Your task to perform on an android device: check out phone information Image 0: 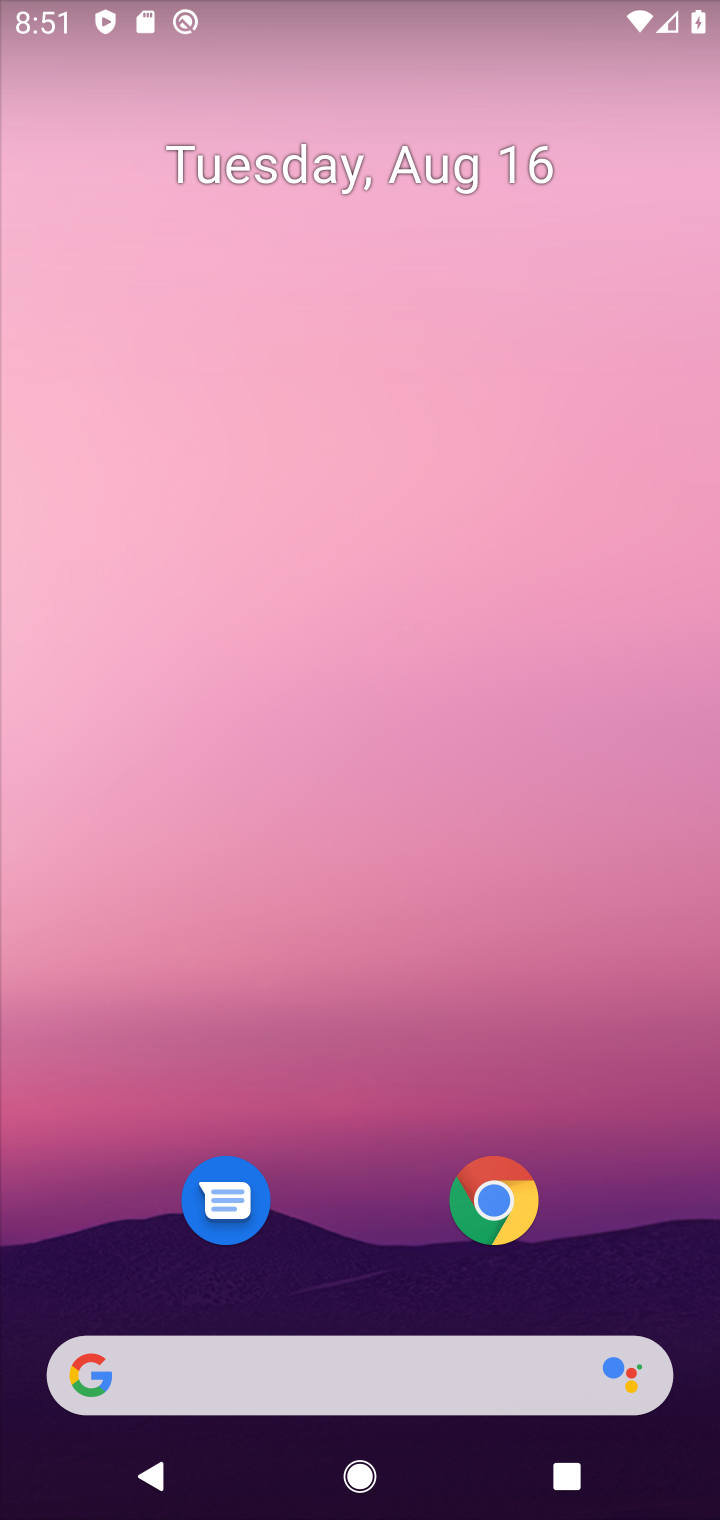
Step 0: drag from (312, 1180) to (250, 285)
Your task to perform on an android device: check out phone information Image 1: 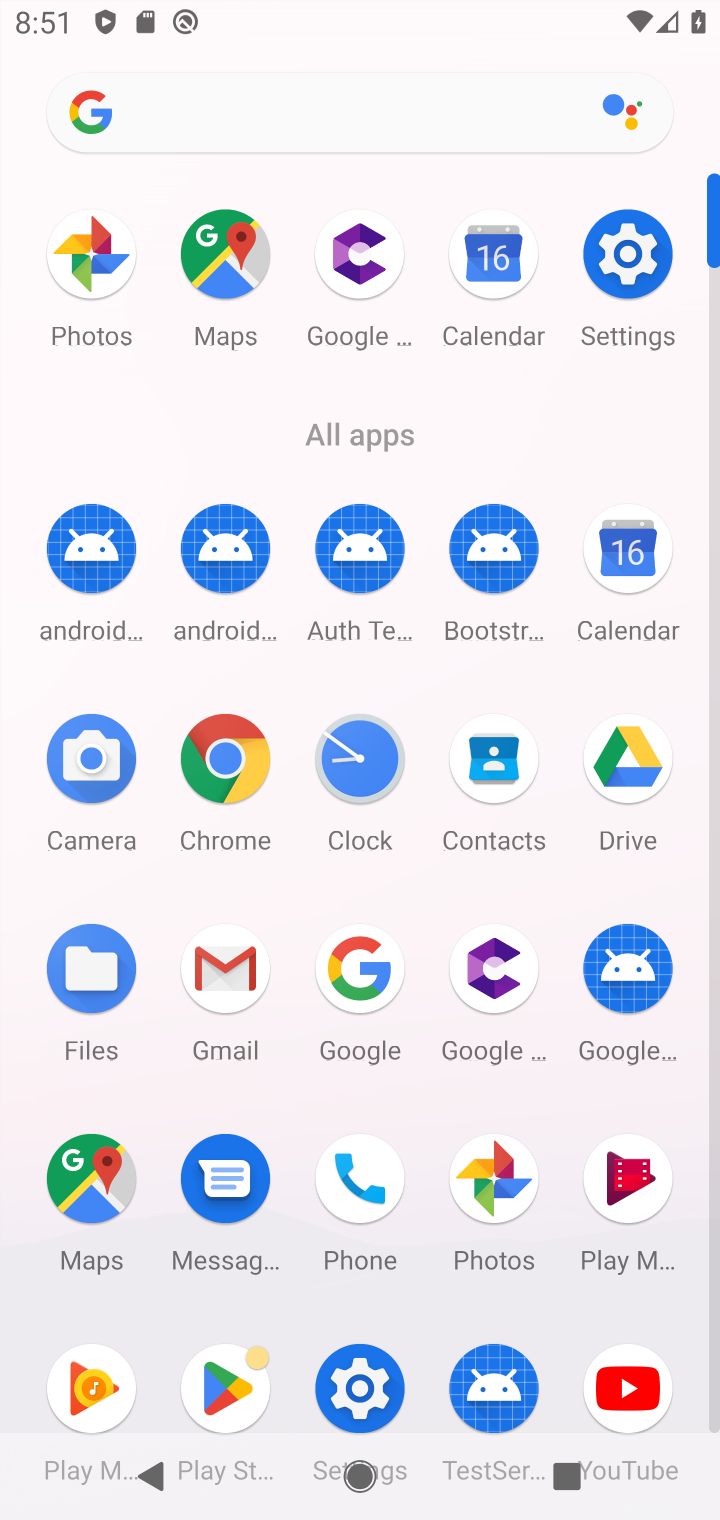
Step 1: click (625, 247)
Your task to perform on an android device: check out phone information Image 2: 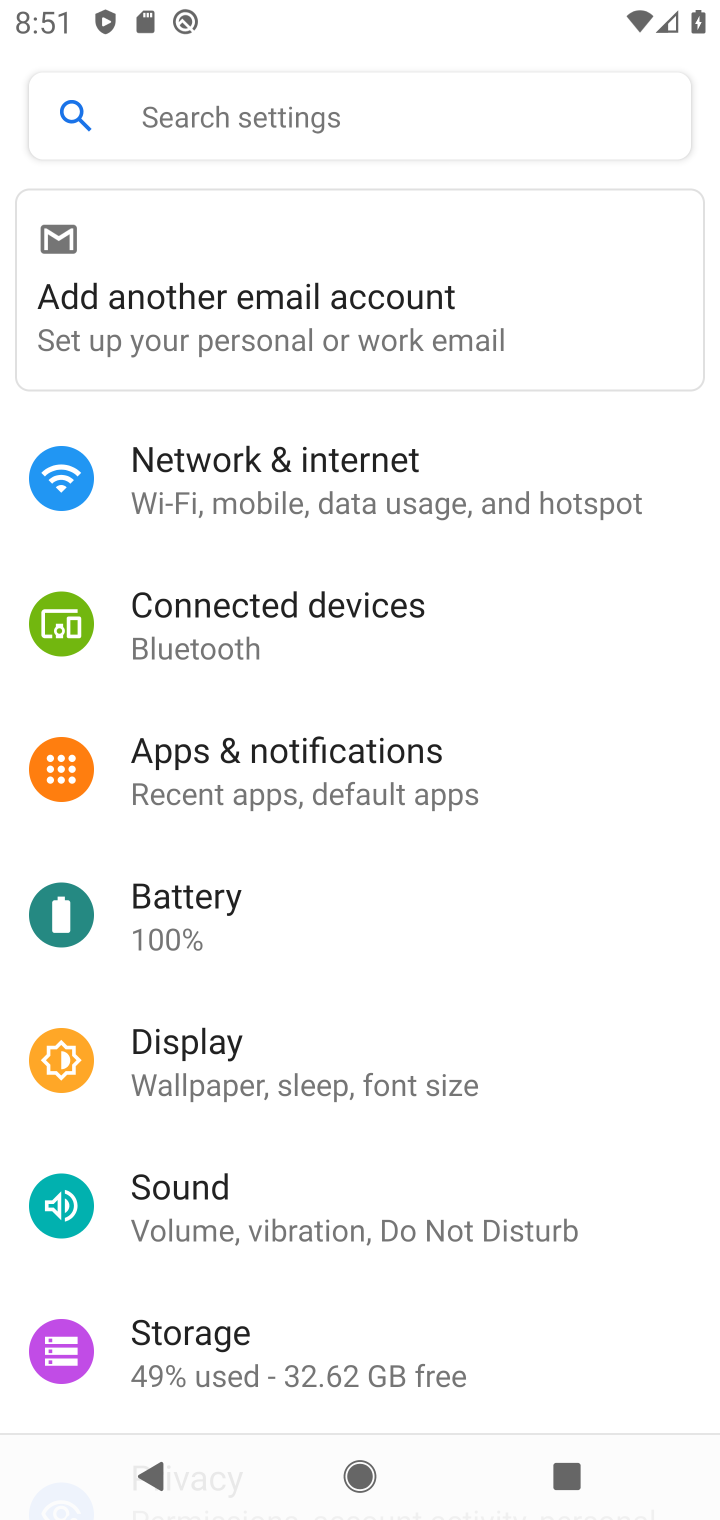
Step 2: drag from (263, 936) to (456, 146)
Your task to perform on an android device: check out phone information Image 3: 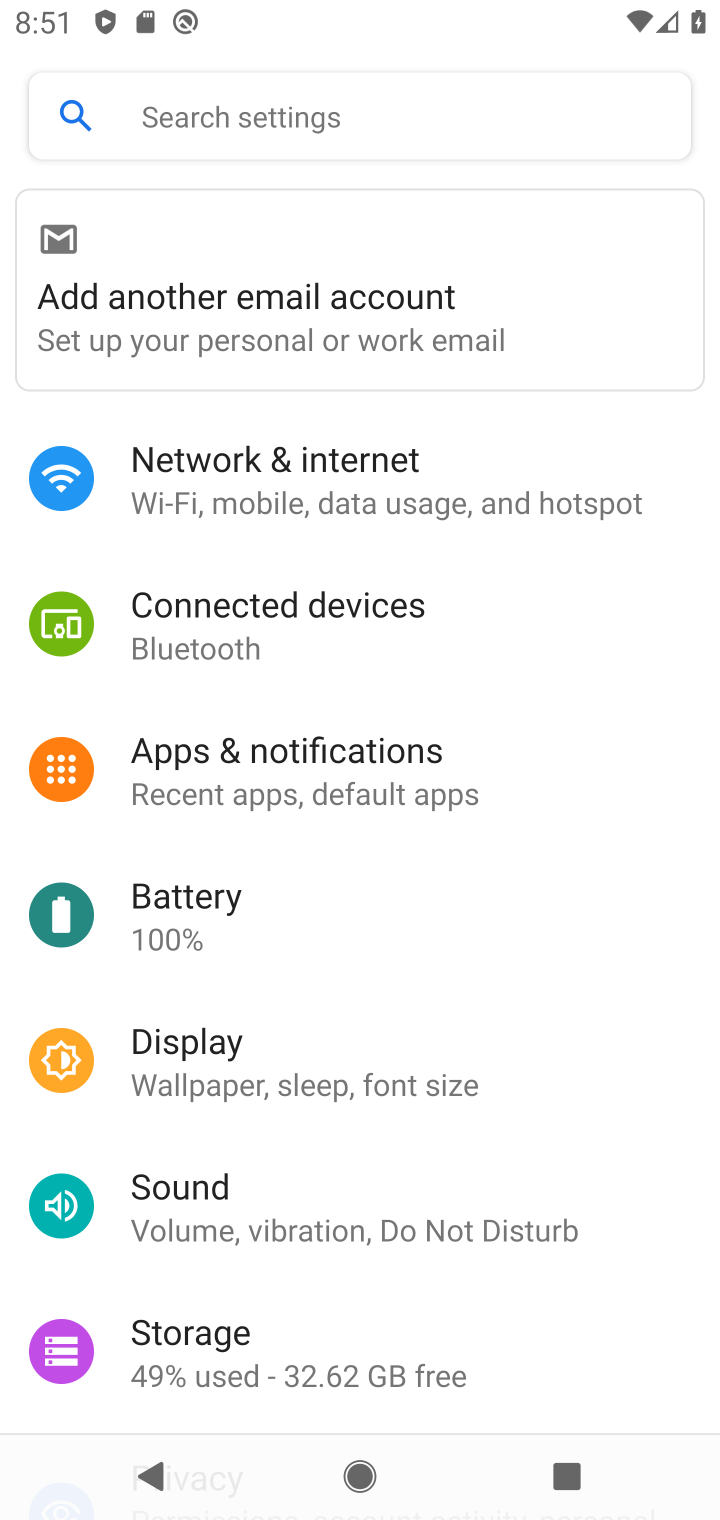
Step 3: drag from (246, 949) to (292, 350)
Your task to perform on an android device: check out phone information Image 4: 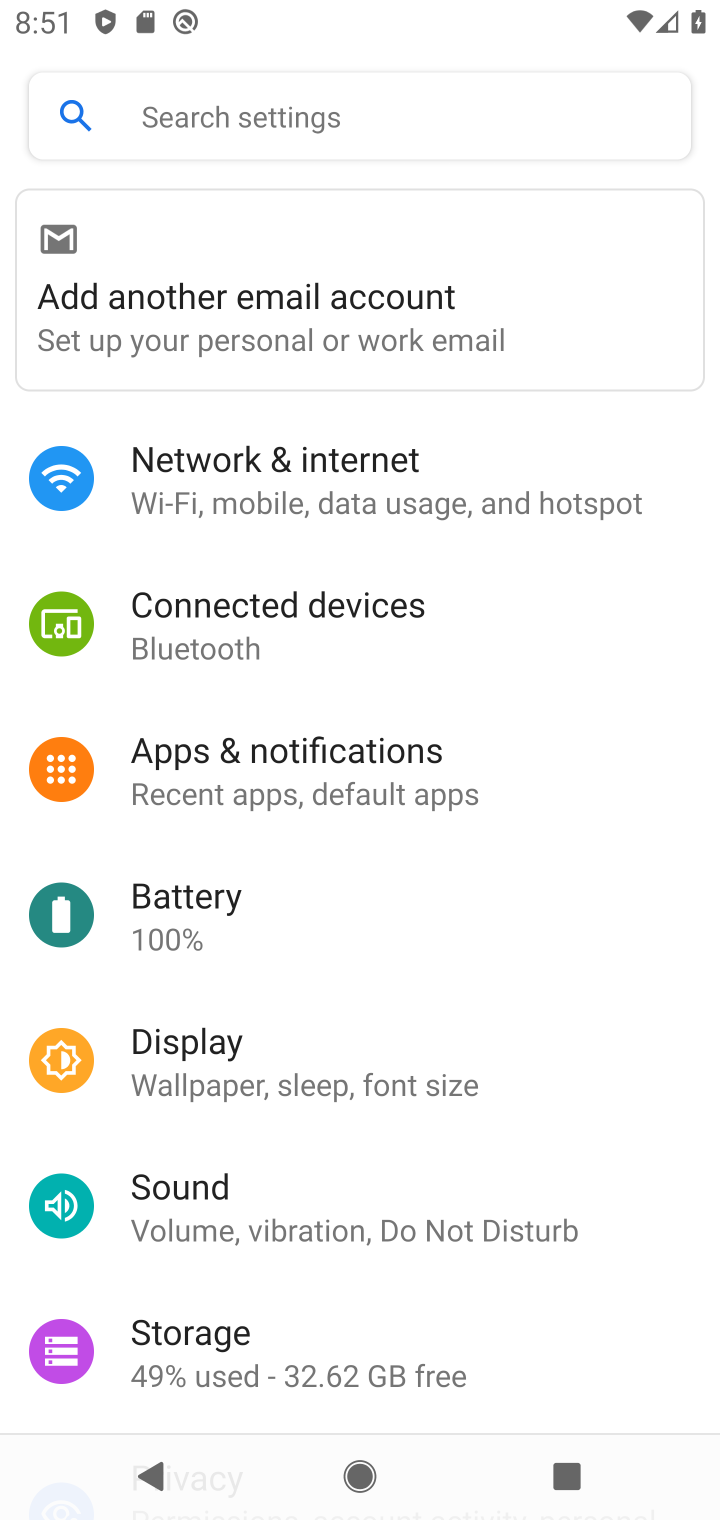
Step 4: drag from (299, 705) to (438, 67)
Your task to perform on an android device: check out phone information Image 5: 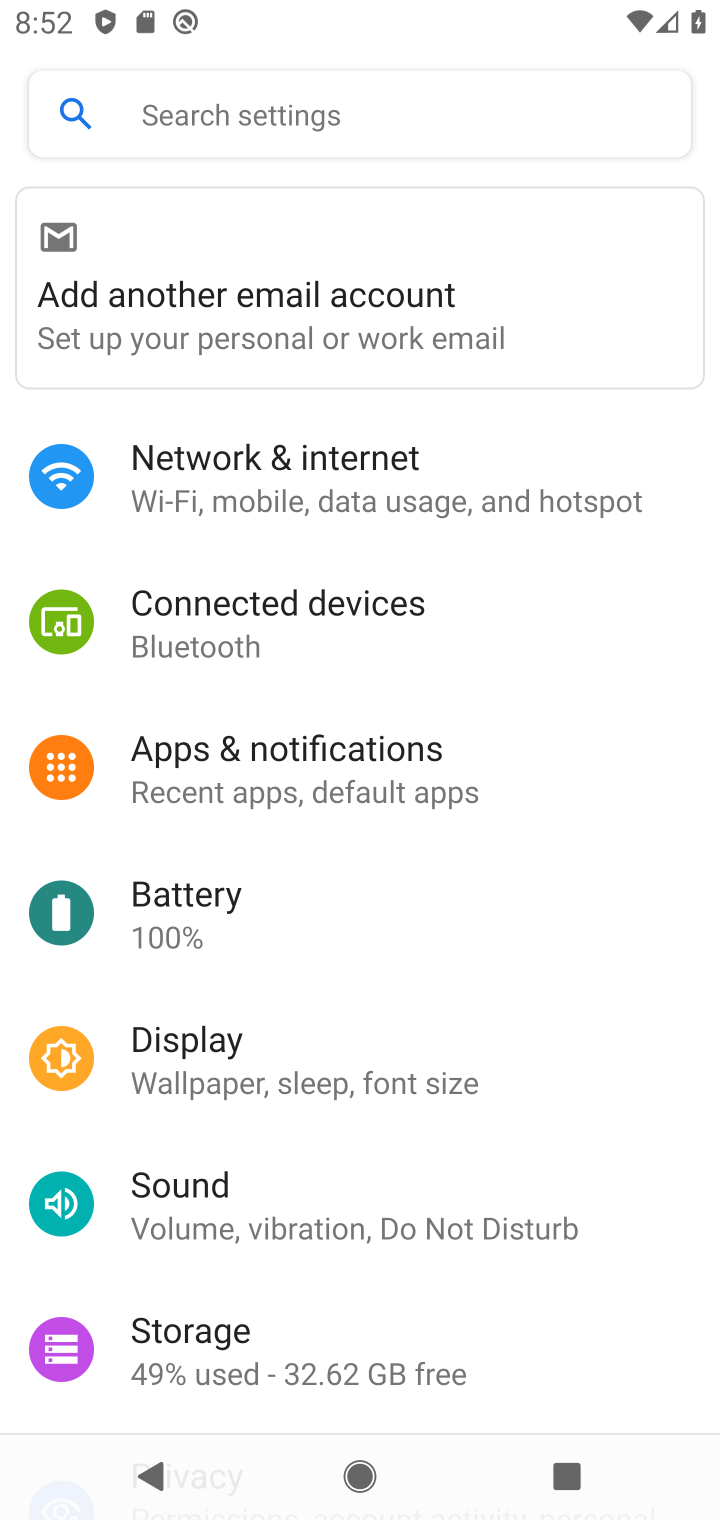
Step 5: drag from (213, 1347) to (336, 520)
Your task to perform on an android device: check out phone information Image 6: 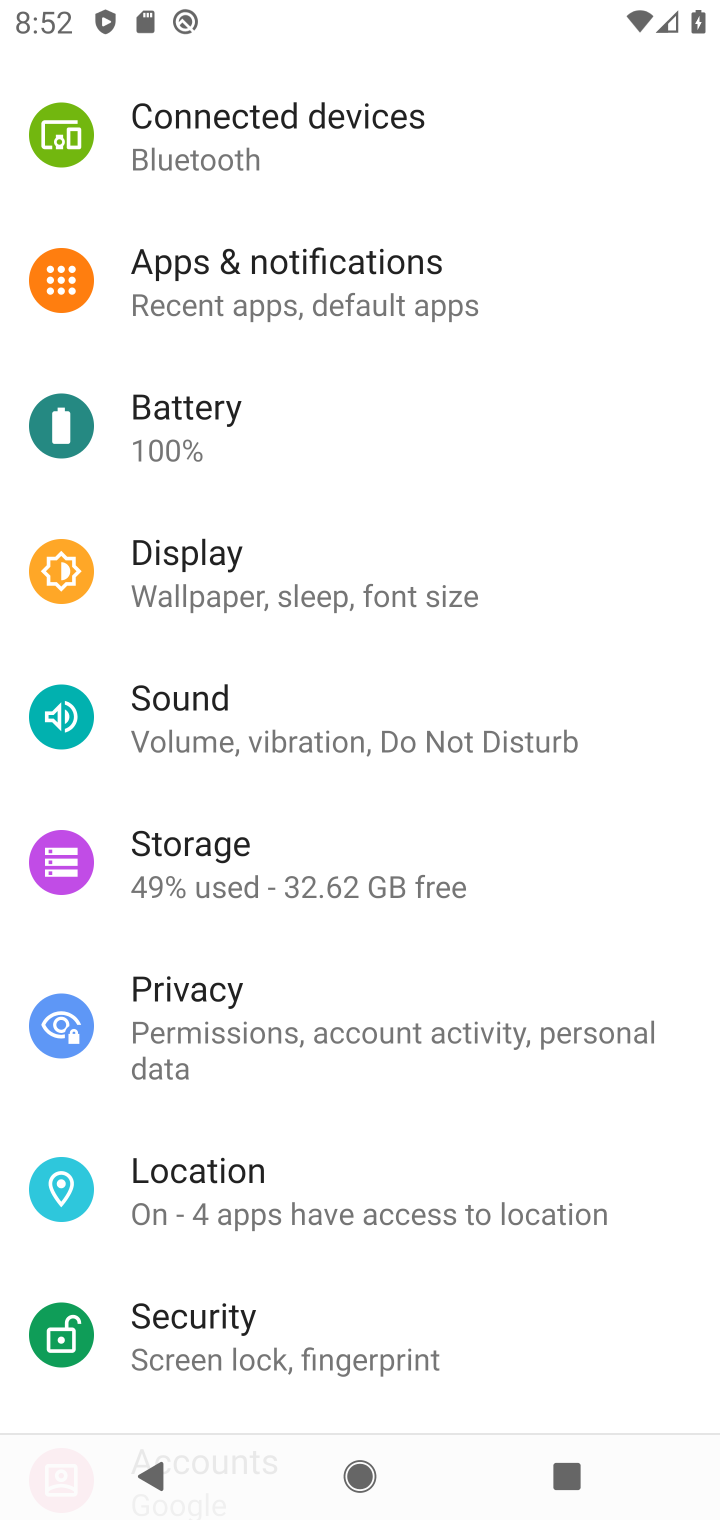
Step 6: drag from (304, 835) to (357, 438)
Your task to perform on an android device: check out phone information Image 7: 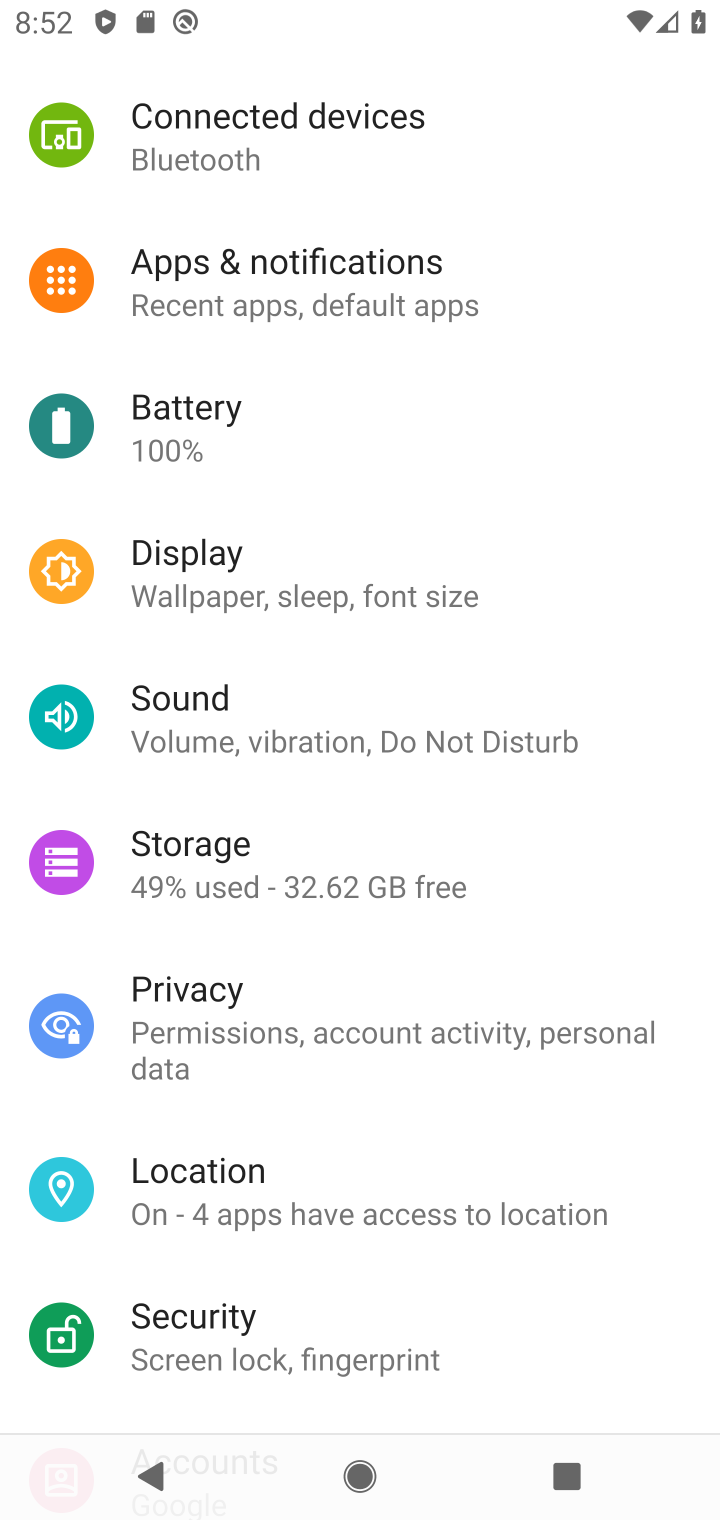
Step 7: drag from (338, 551) to (367, 145)
Your task to perform on an android device: check out phone information Image 8: 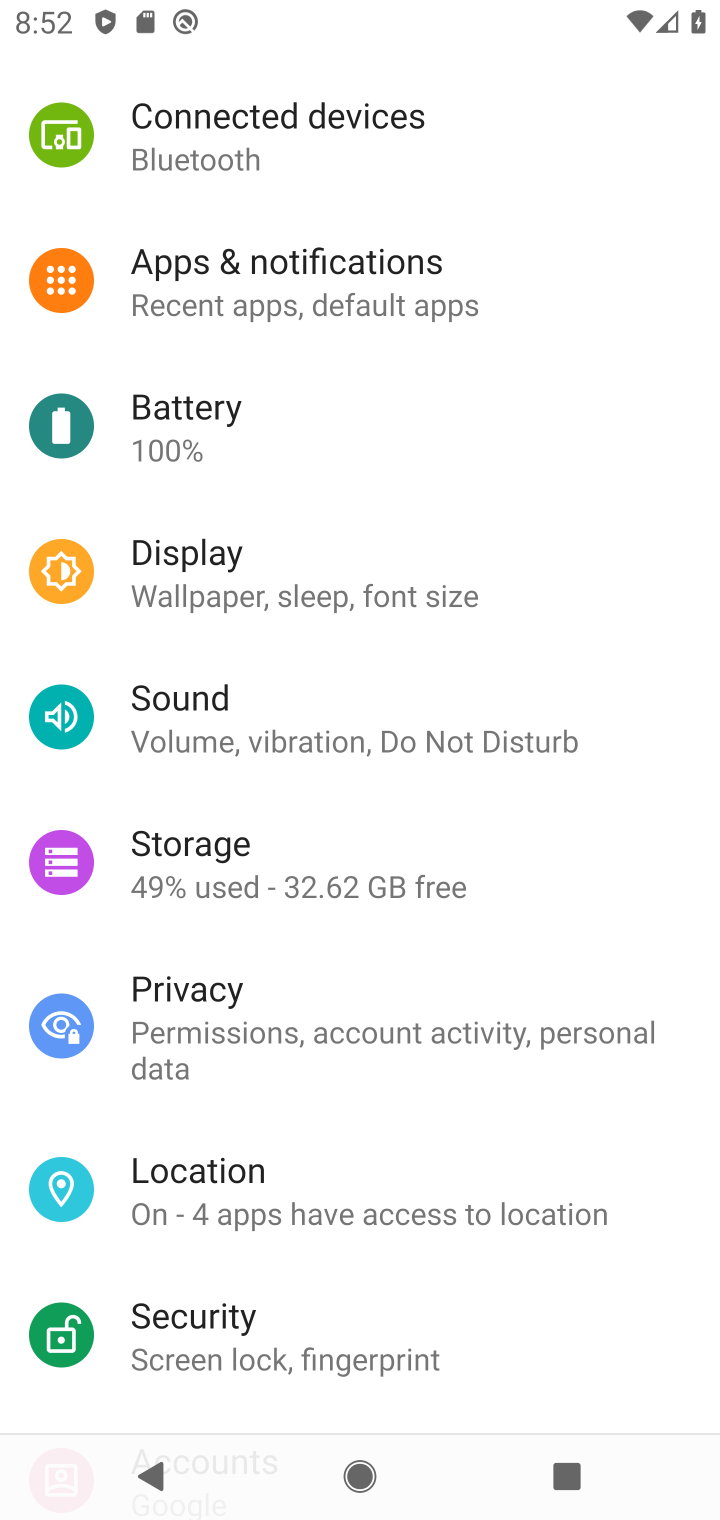
Step 8: drag from (397, 1153) to (508, 327)
Your task to perform on an android device: check out phone information Image 9: 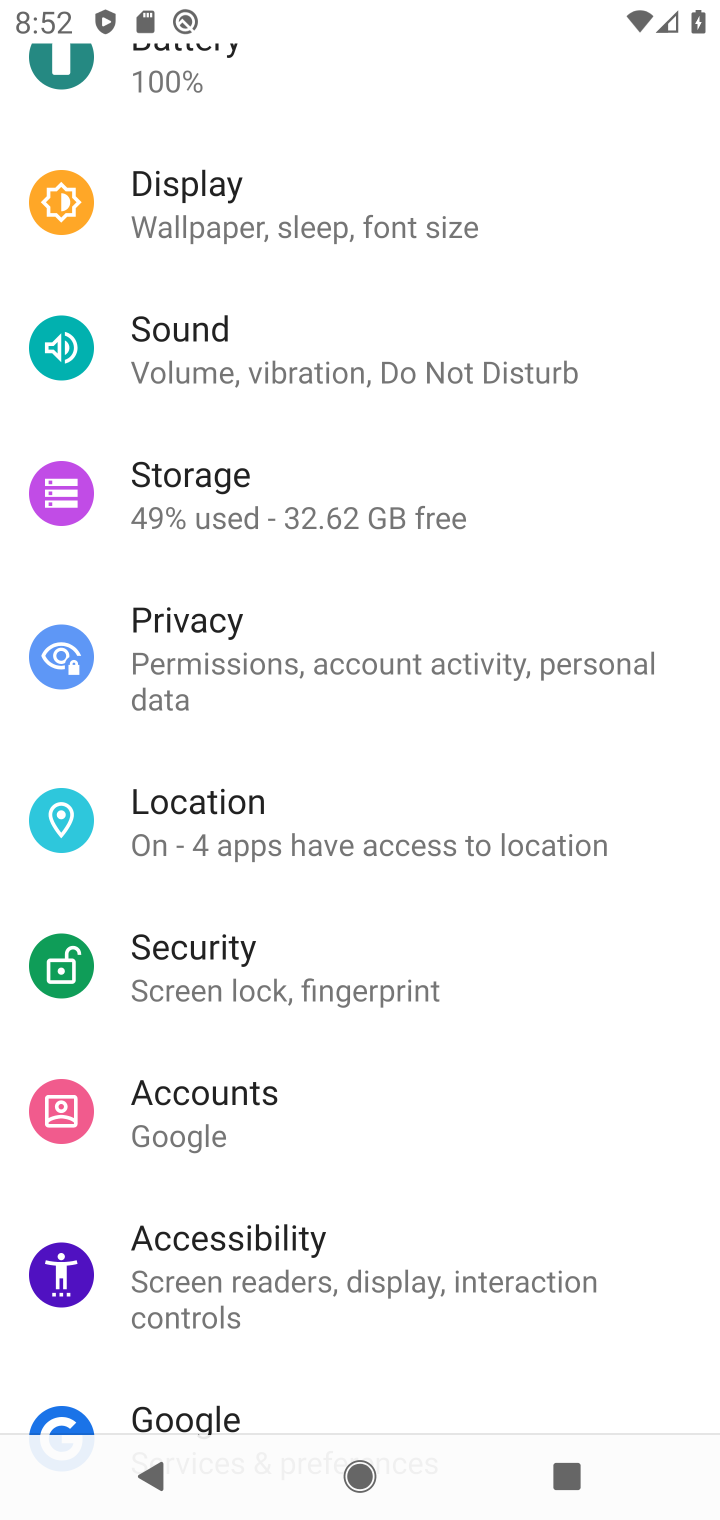
Step 9: drag from (378, 690) to (417, 407)
Your task to perform on an android device: check out phone information Image 10: 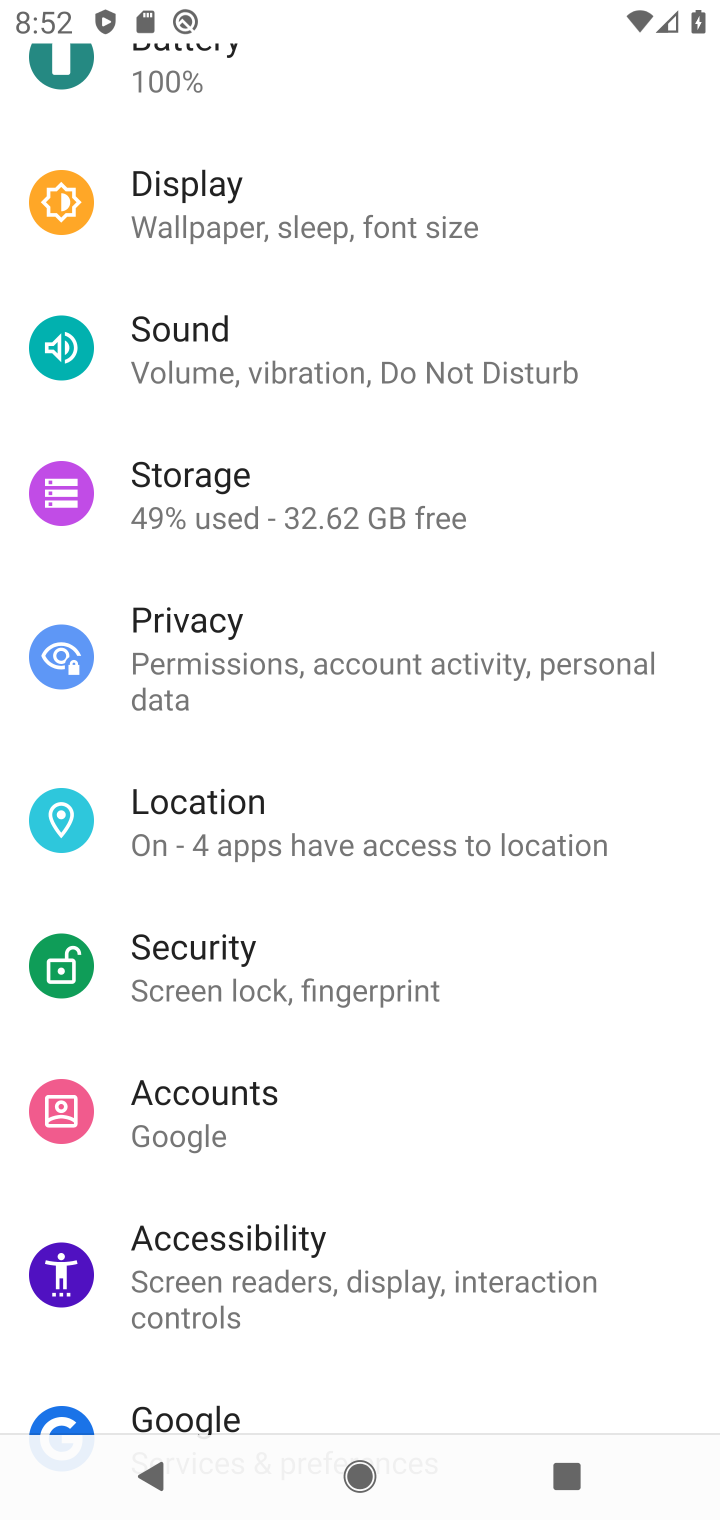
Step 10: drag from (350, 1323) to (475, 76)
Your task to perform on an android device: check out phone information Image 11: 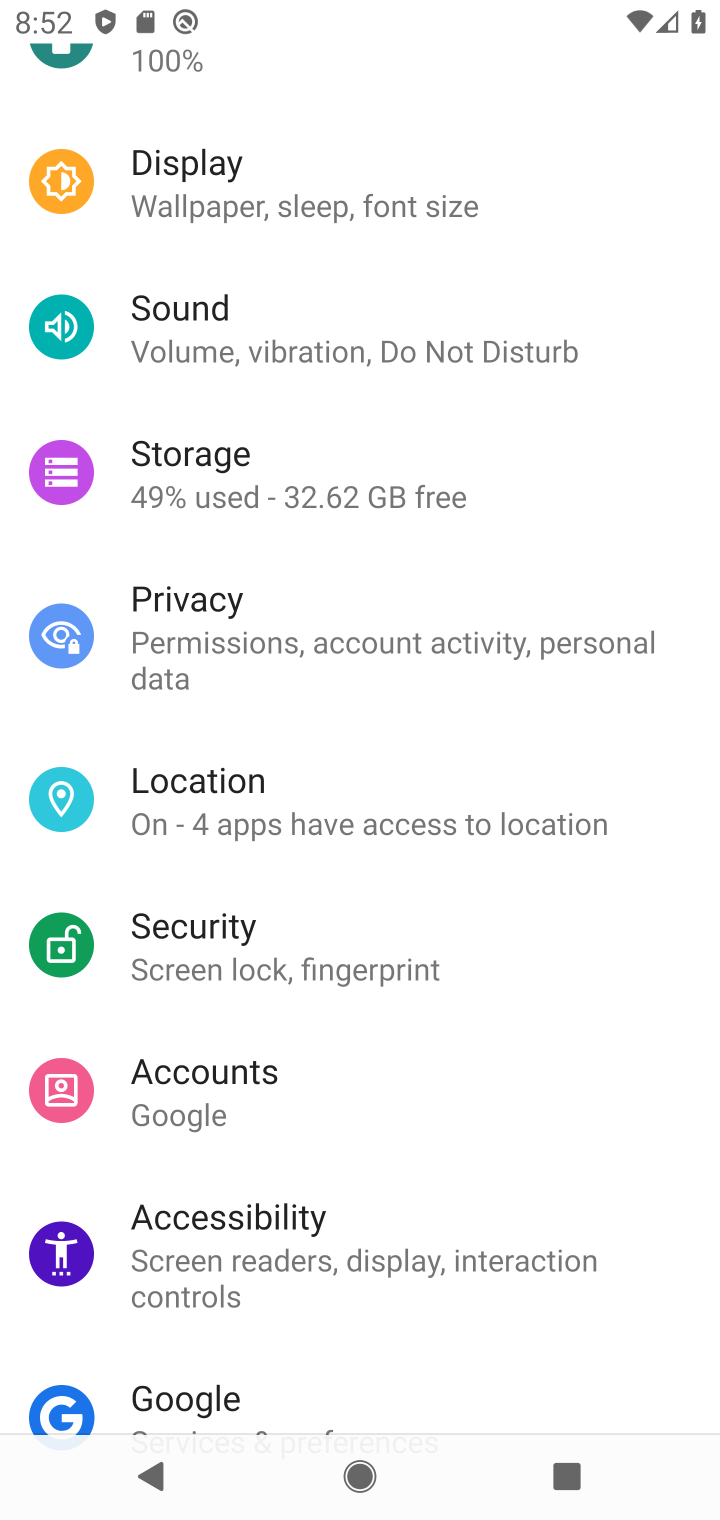
Step 11: drag from (335, 830) to (364, 605)
Your task to perform on an android device: check out phone information Image 12: 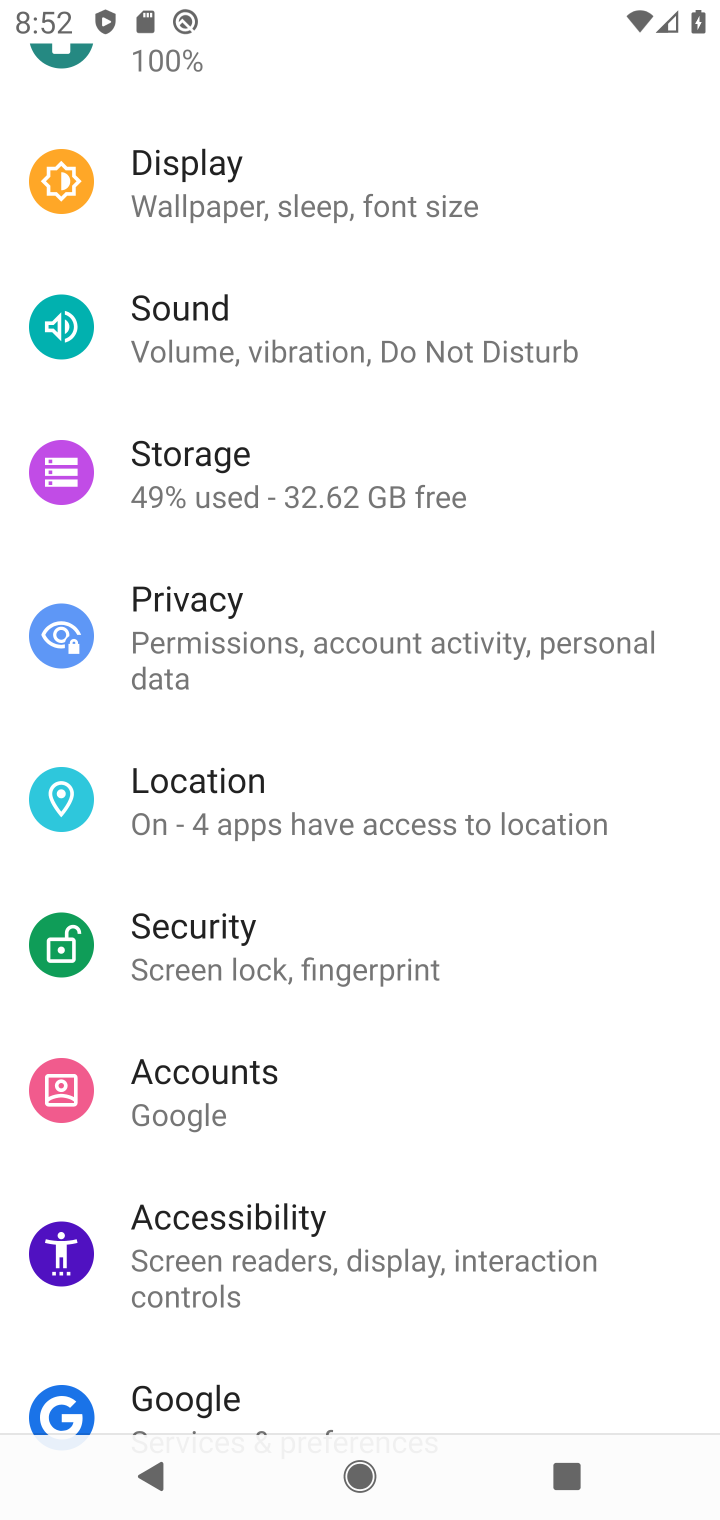
Step 12: drag from (307, 1213) to (442, 491)
Your task to perform on an android device: check out phone information Image 13: 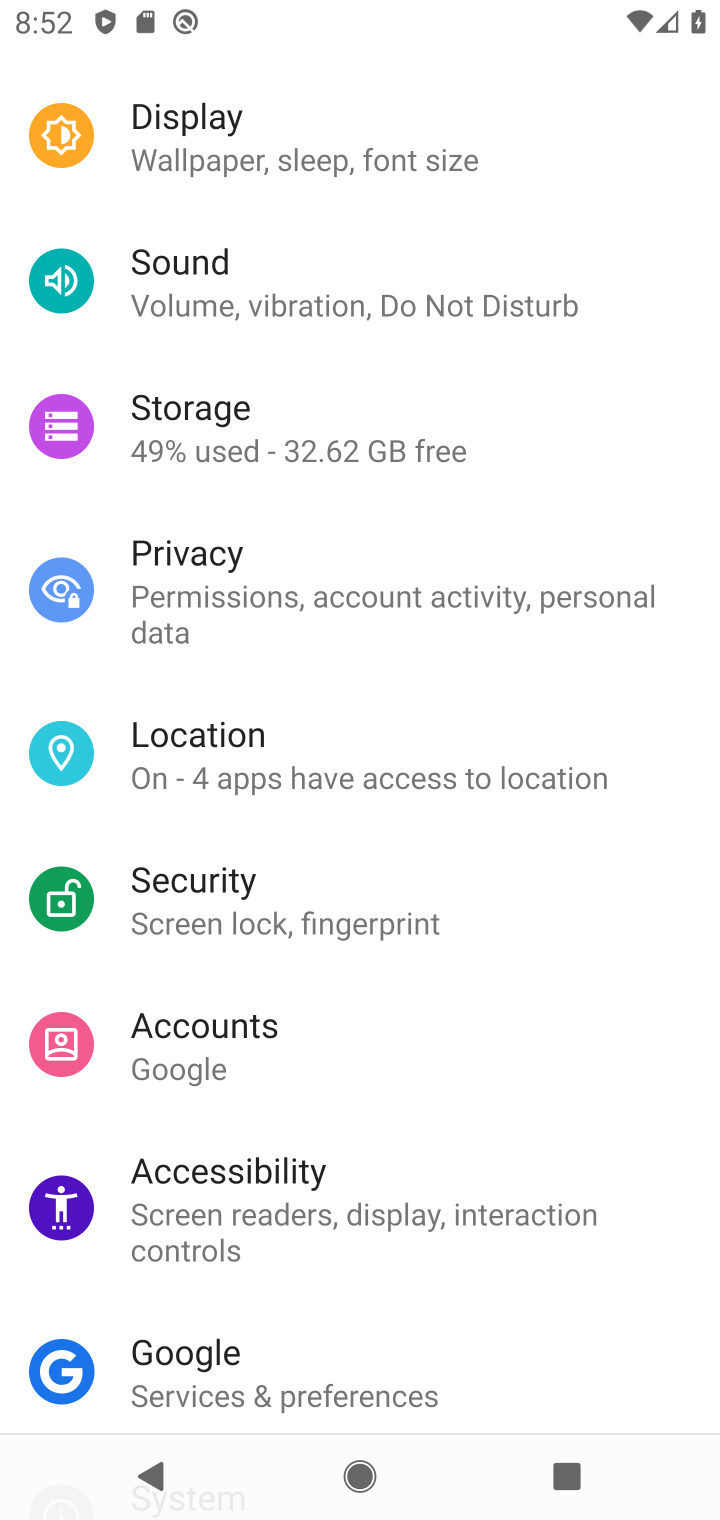
Step 13: drag from (405, 1249) to (408, 520)
Your task to perform on an android device: check out phone information Image 14: 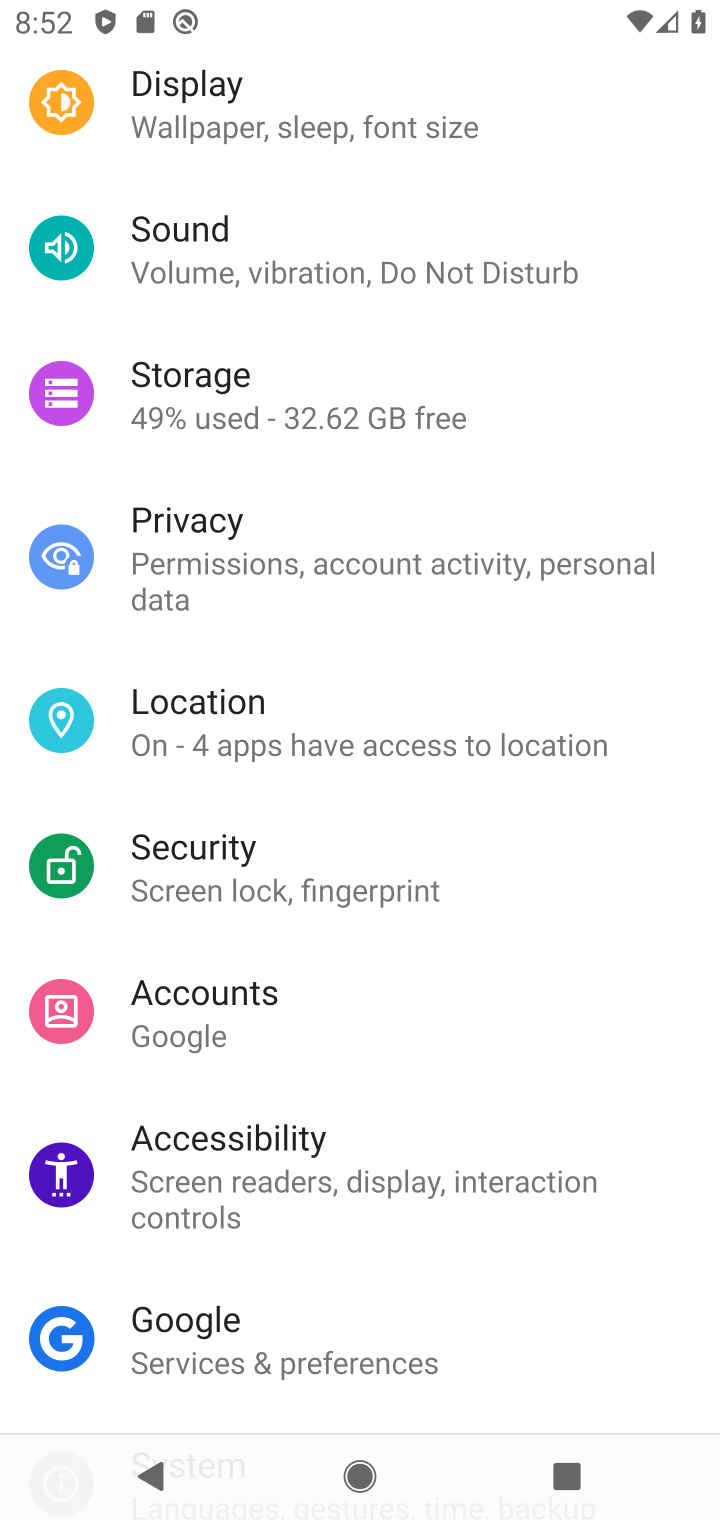
Step 14: drag from (199, 1375) to (215, 646)
Your task to perform on an android device: check out phone information Image 15: 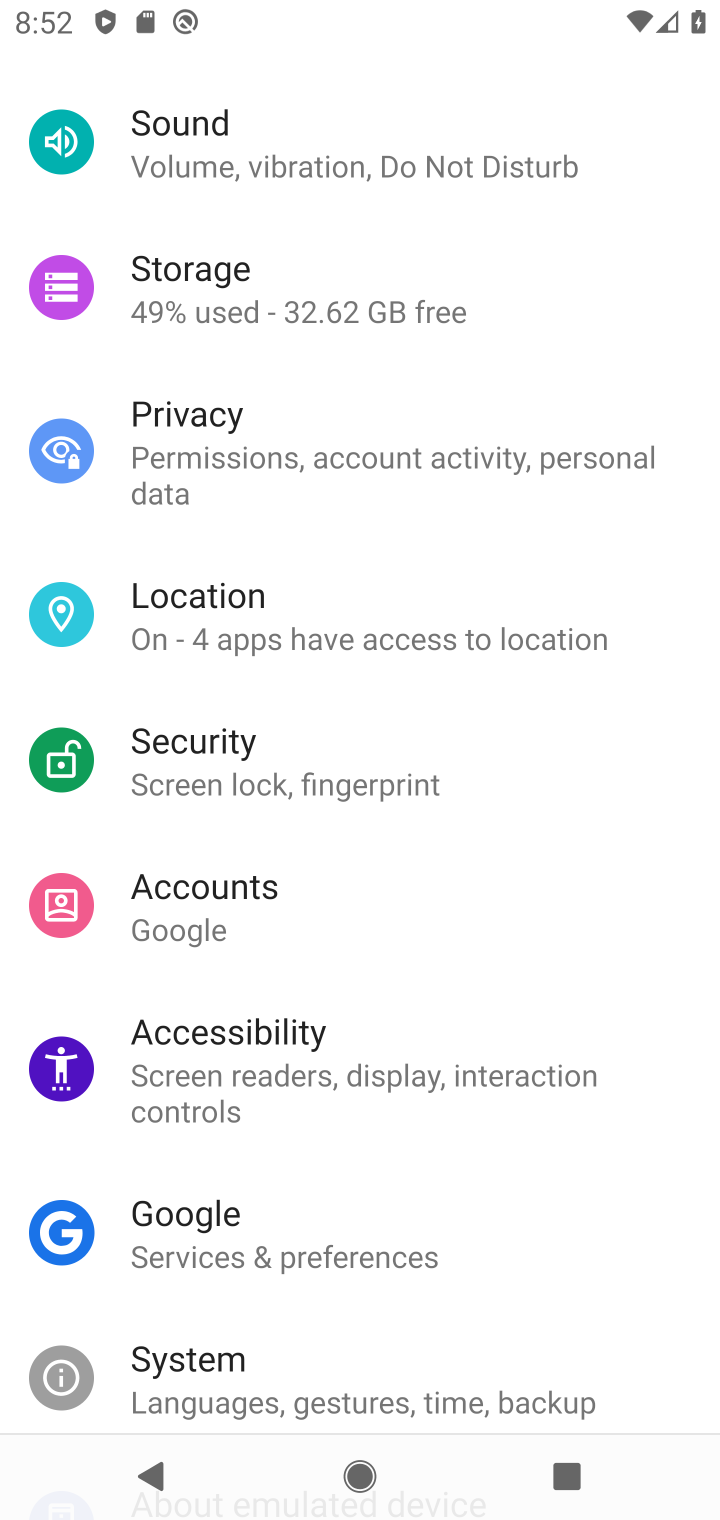
Step 15: drag from (271, 743) to (284, 575)
Your task to perform on an android device: check out phone information Image 16: 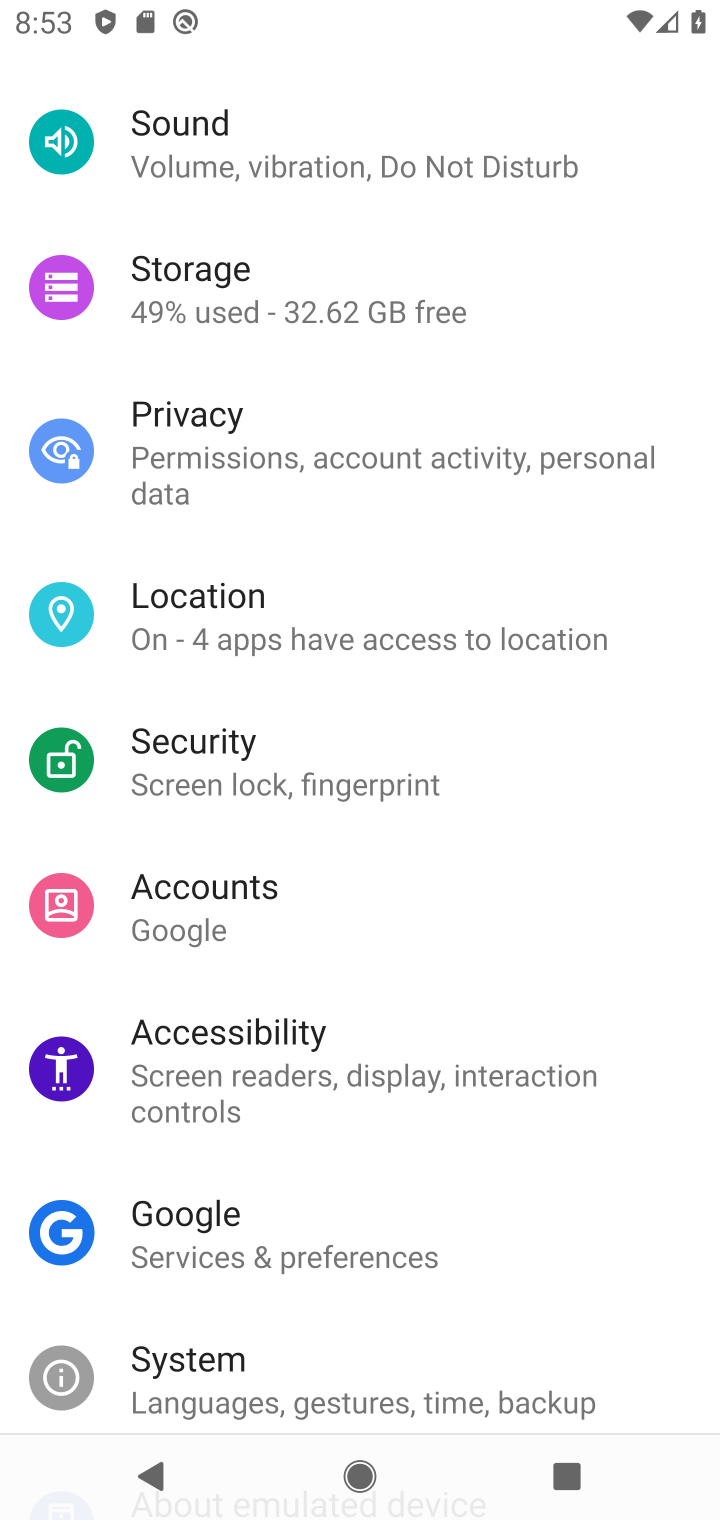
Step 16: click (344, 438)
Your task to perform on an android device: check out phone information Image 17: 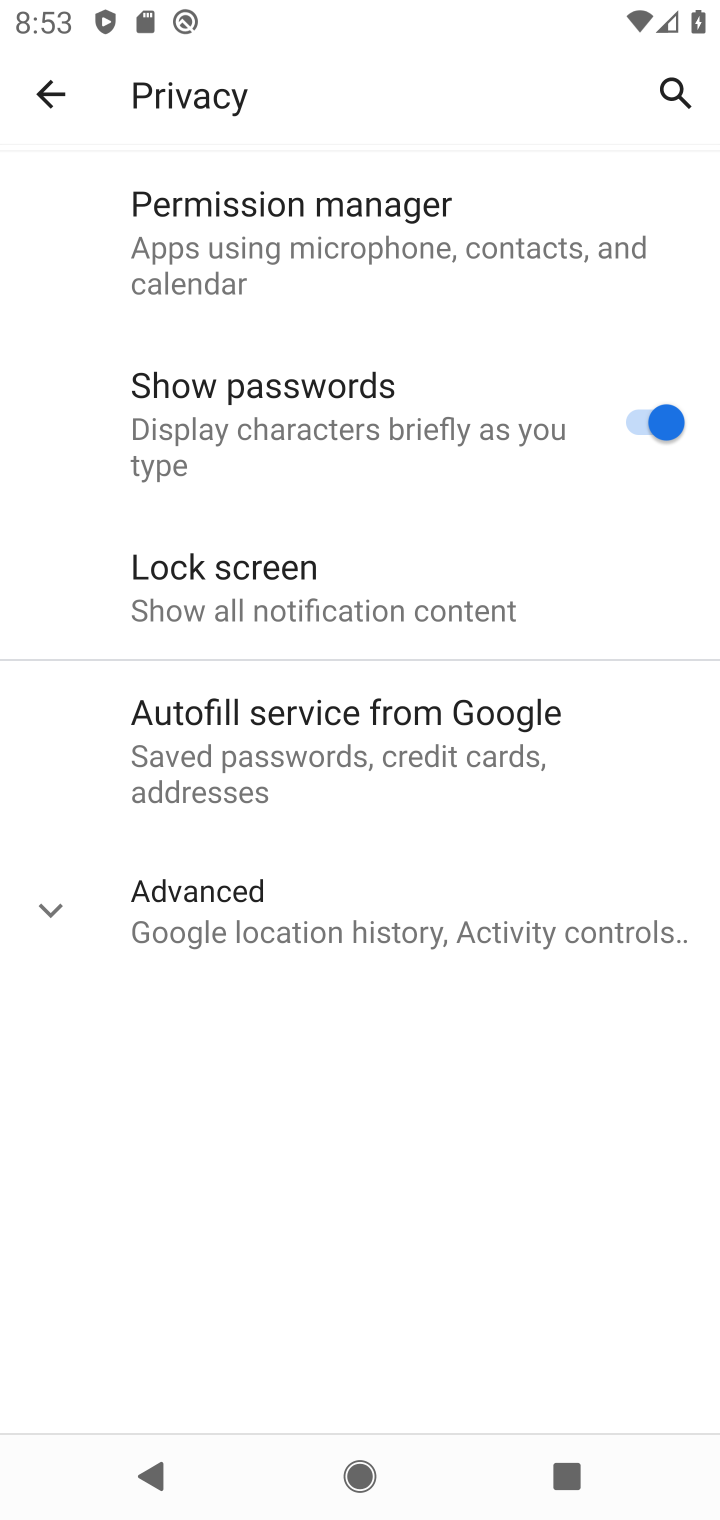
Step 17: click (49, 68)
Your task to perform on an android device: check out phone information Image 18: 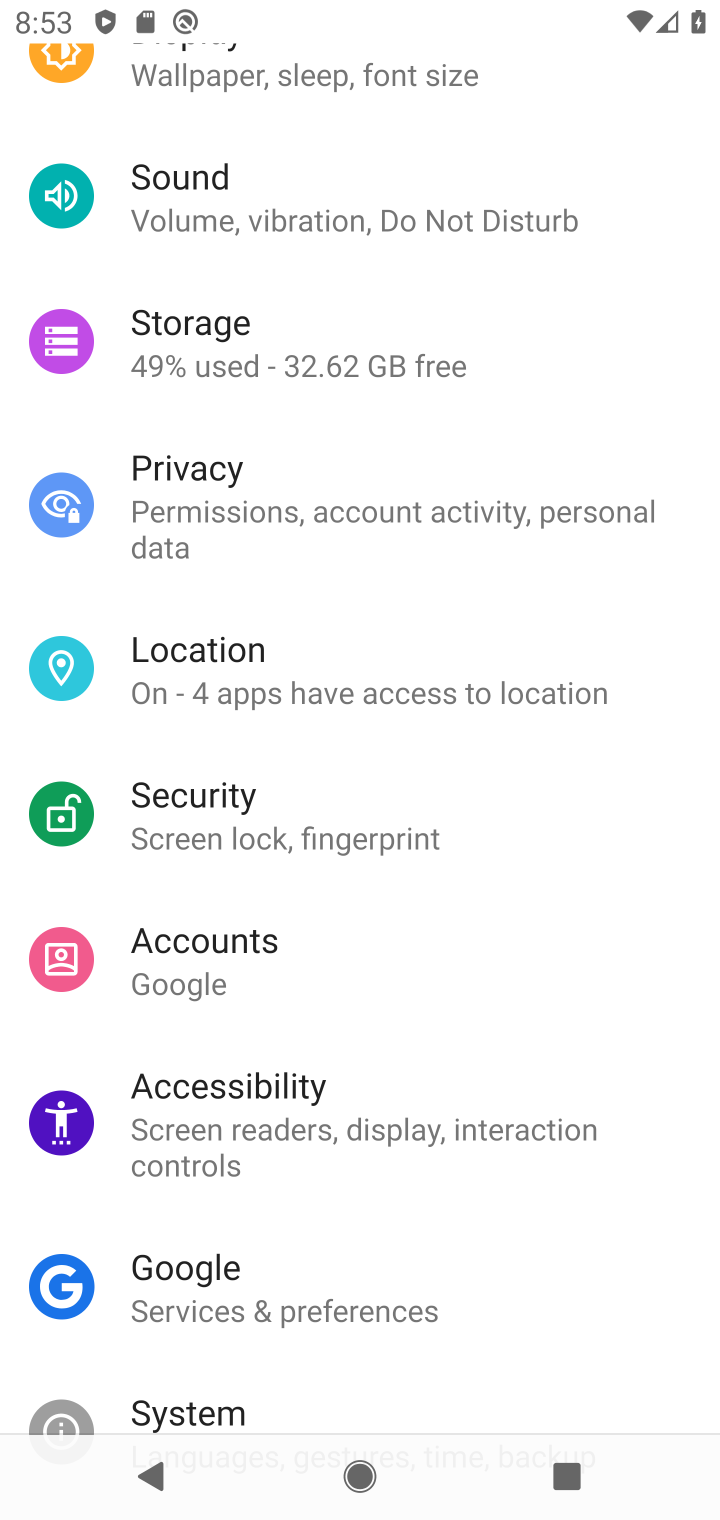
Step 18: drag from (401, 497) to (442, 299)
Your task to perform on an android device: check out phone information Image 19: 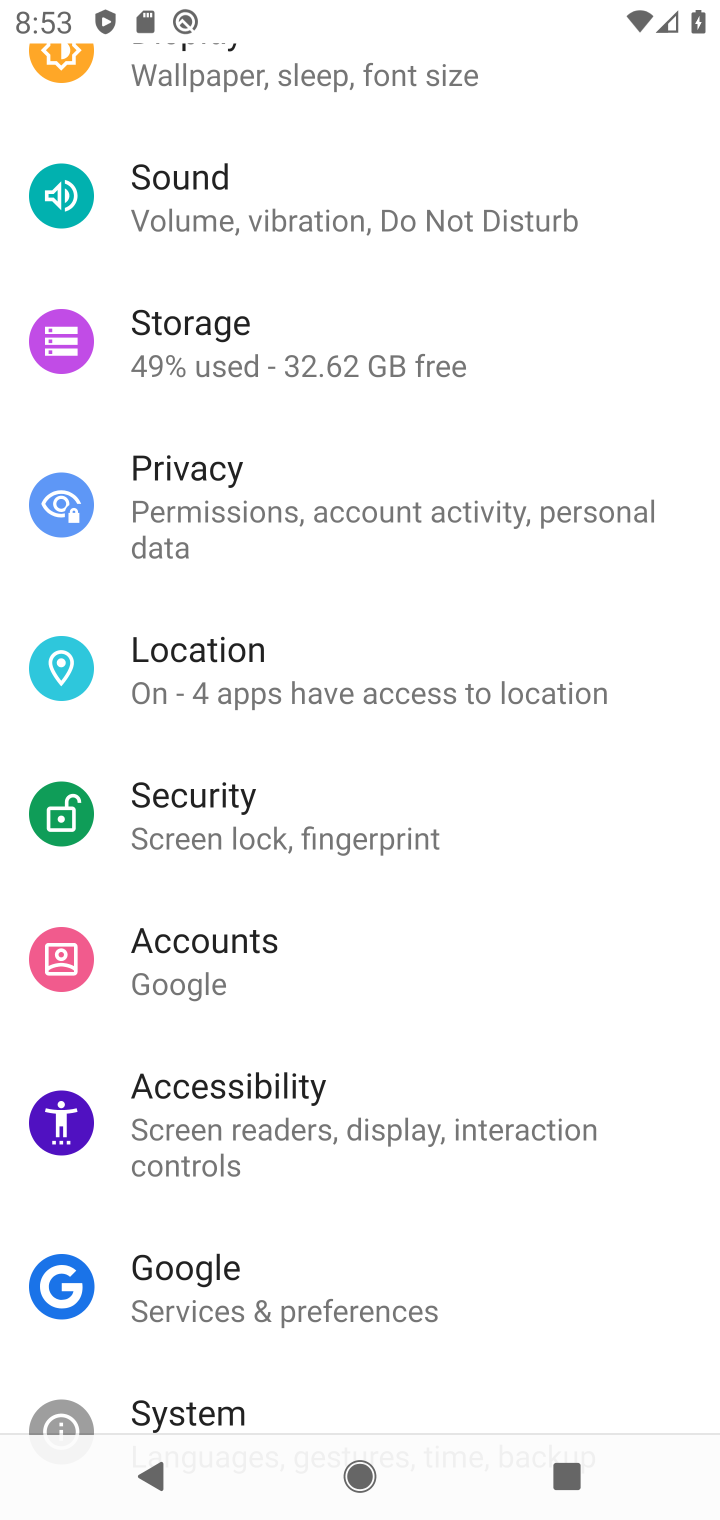
Step 19: drag from (334, 937) to (388, 724)
Your task to perform on an android device: check out phone information Image 20: 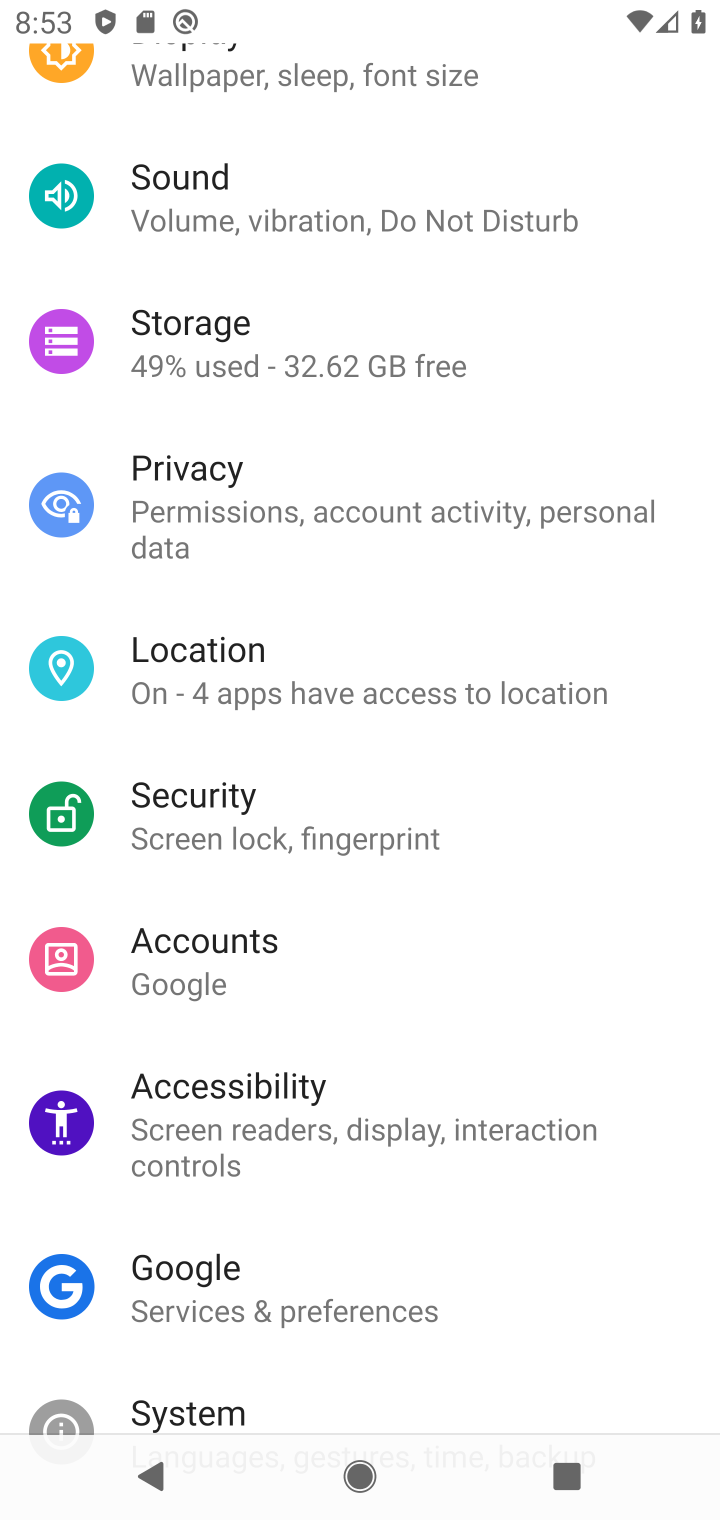
Step 20: drag from (291, 1341) to (291, 779)
Your task to perform on an android device: check out phone information Image 21: 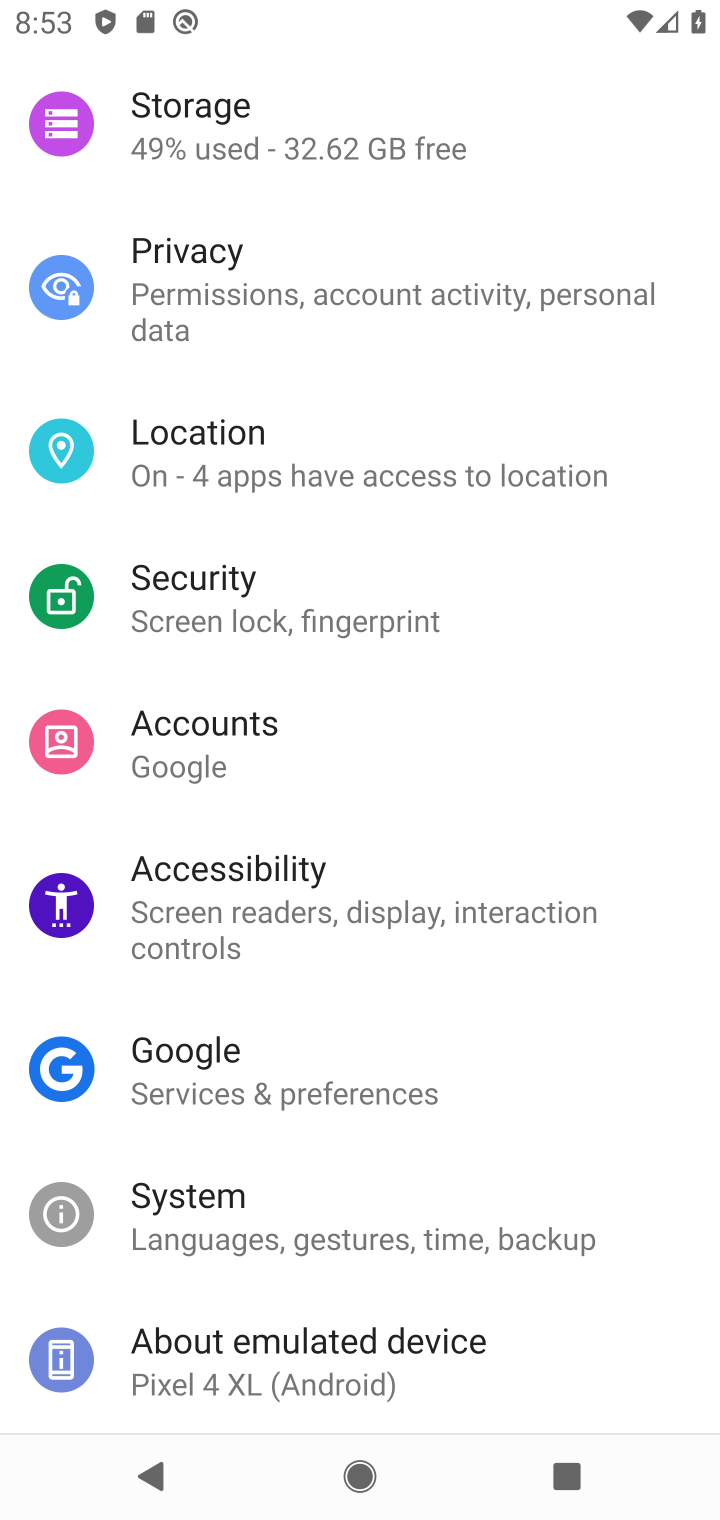
Step 21: click (306, 1373)
Your task to perform on an android device: check out phone information Image 22: 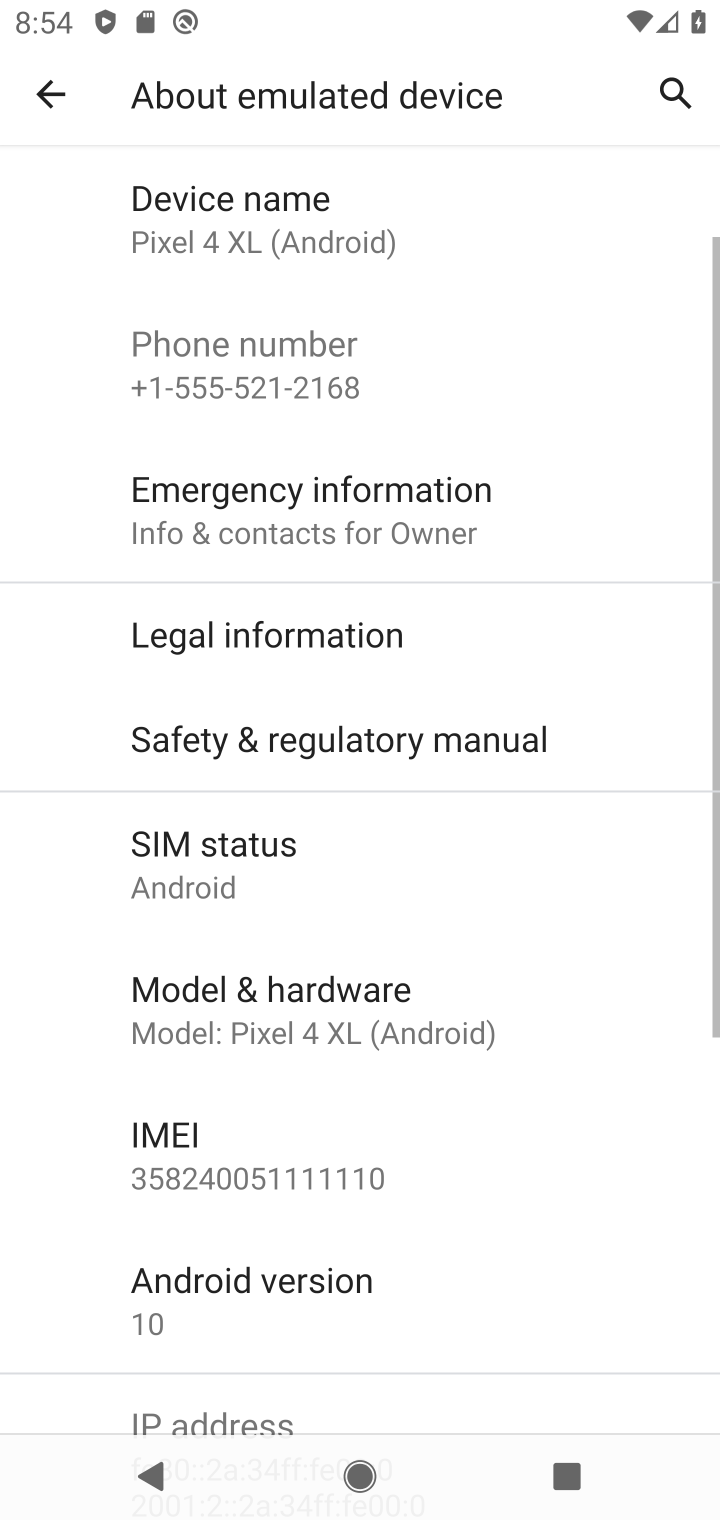
Step 22: task complete